Your task to perform on an android device: What's the weather? Image 0: 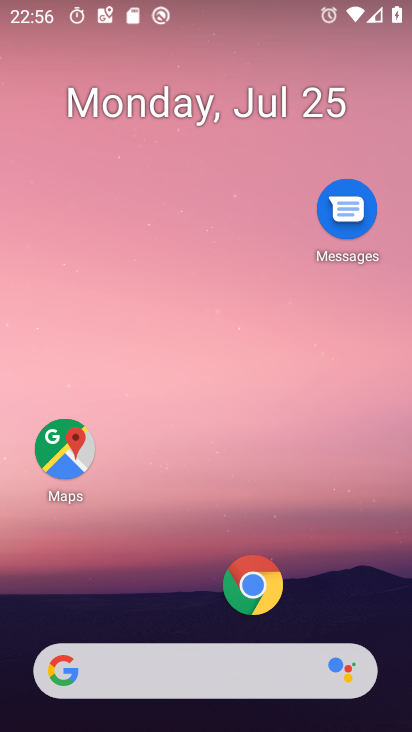
Step 0: press home button
Your task to perform on an android device: What's the weather? Image 1: 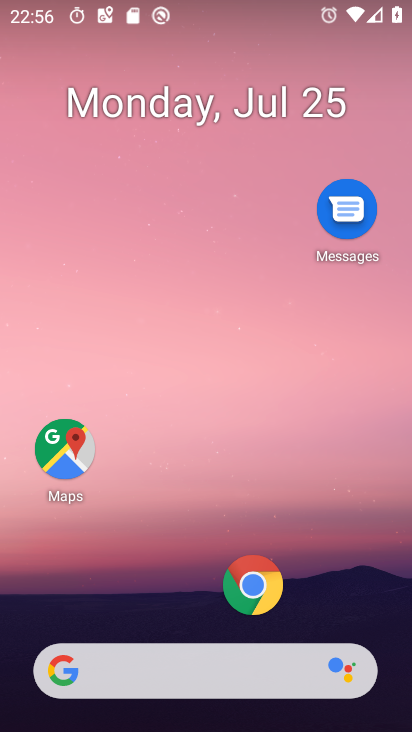
Step 1: click (116, 686)
Your task to perform on an android device: What's the weather? Image 2: 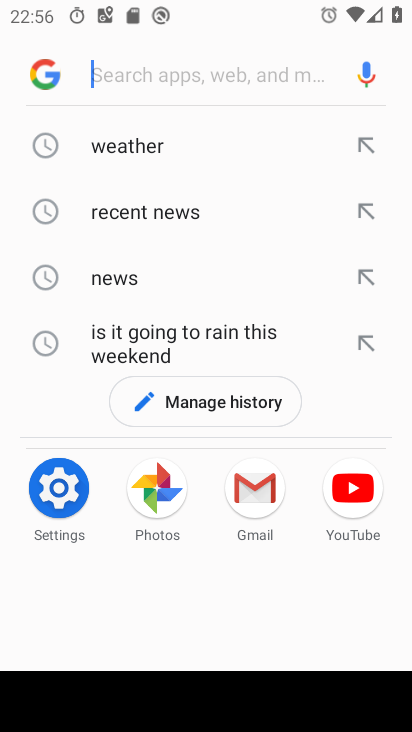
Step 2: click (149, 152)
Your task to perform on an android device: What's the weather? Image 3: 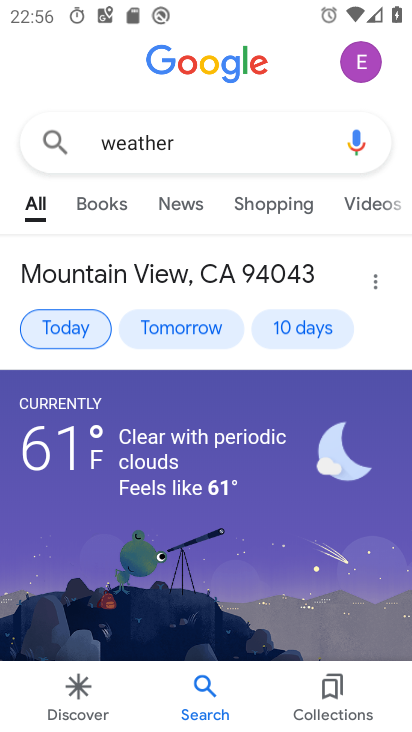
Step 3: task complete